Your task to perform on an android device: Search for seafood restaurants on Google Maps Image 0: 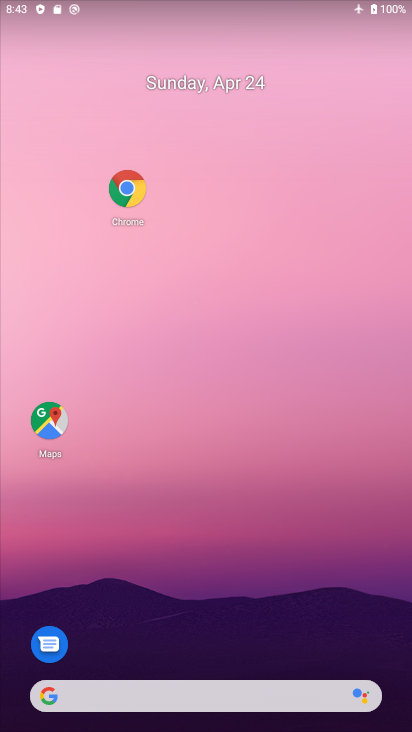
Step 0: click (359, 456)
Your task to perform on an android device: Search for seafood restaurants on Google Maps Image 1: 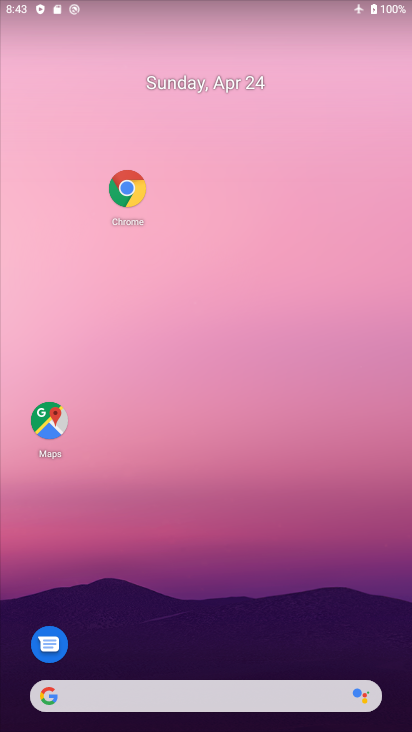
Step 1: drag from (236, 455) to (248, 11)
Your task to perform on an android device: Search for seafood restaurants on Google Maps Image 2: 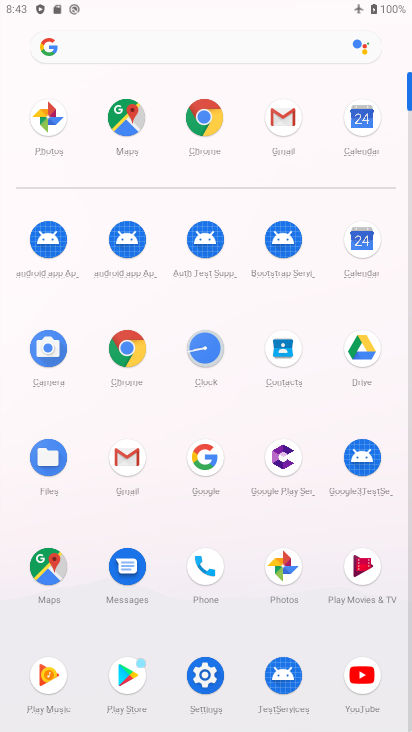
Step 2: click (48, 563)
Your task to perform on an android device: Search for seafood restaurants on Google Maps Image 3: 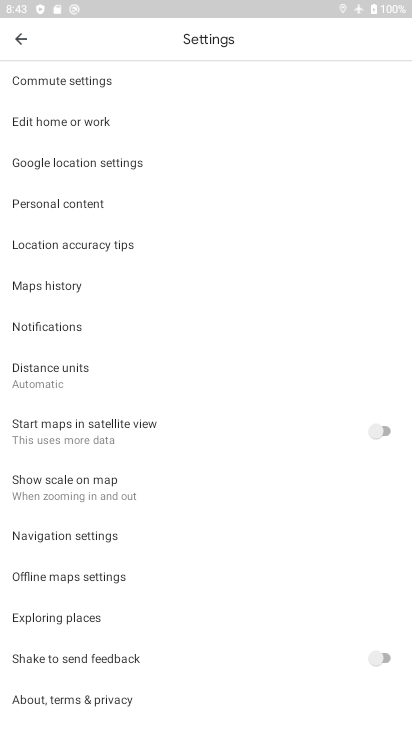
Step 3: click (12, 27)
Your task to perform on an android device: Search for seafood restaurants on Google Maps Image 4: 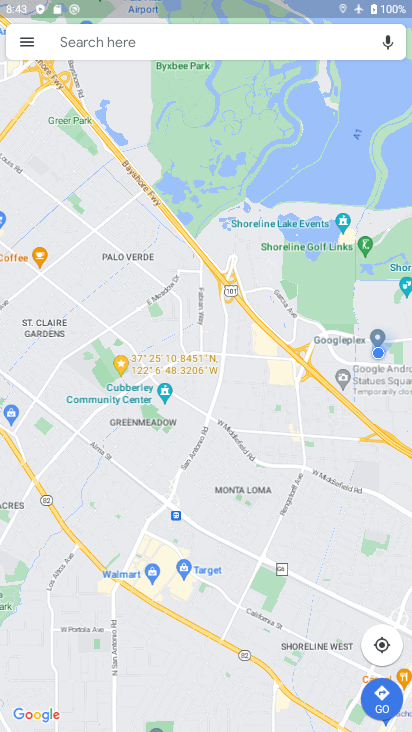
Step 4: click (139, 58)
Your task to perform on an android device: Search for seafood restaurants on Google Maps Image 5: 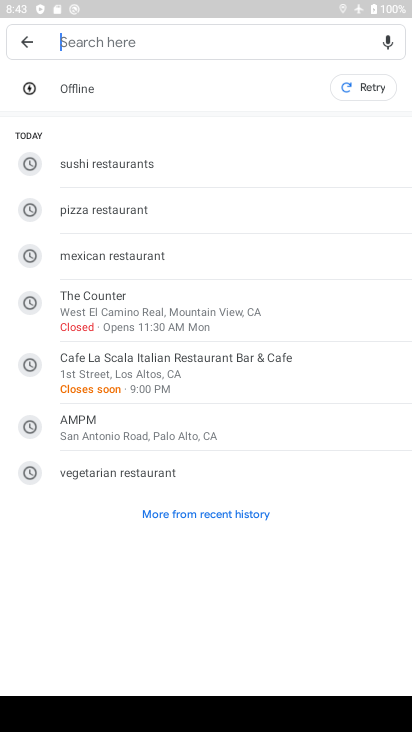
Step 5: click (115, 41)
Your task to perform on an android device: Search for seafood restaurants on Google Maps Image 6: 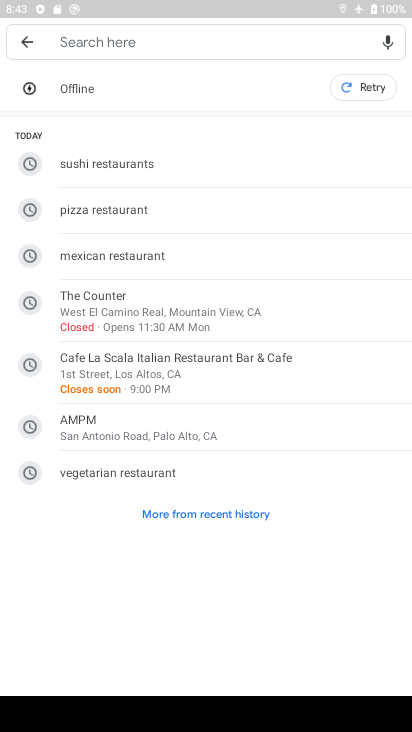
Step 6: type "seafood"
Your task to perform on an android device: Search for seafood restaurants on Google Maps Image 7: 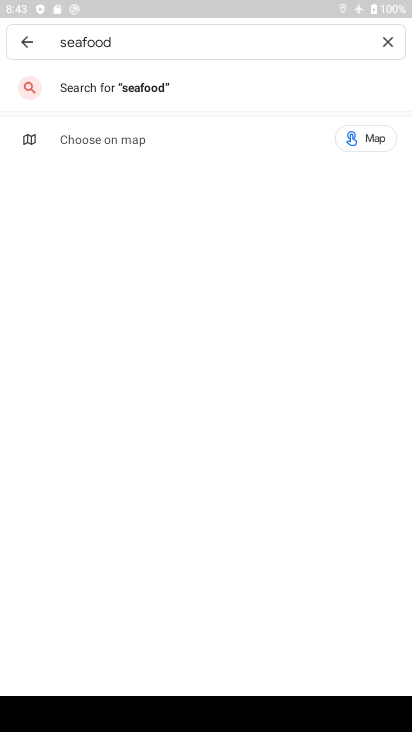
Step 7: click (110, 83)
Your task to perform on an android device: Search for seafood restaurants on Google Maps Image 8: 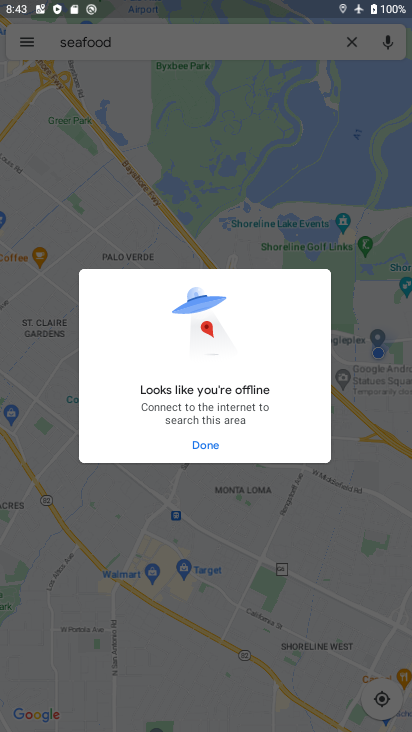
Step 8: task complete